Your task to perform on an android device: install app "Grab" Image 0: 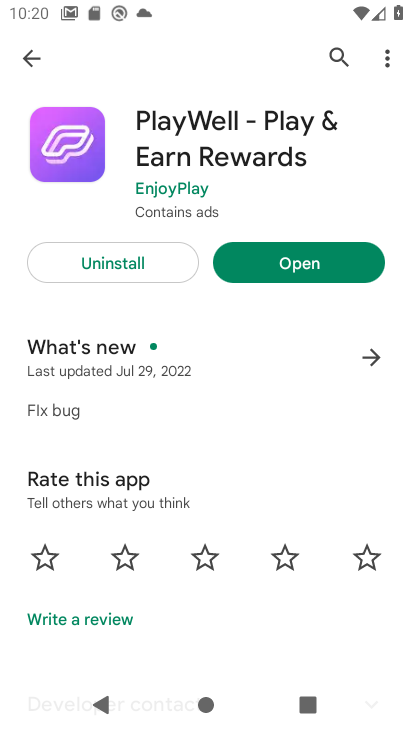
Step 0: click (337, 53)
Your task to perform on an android device: install app "Grab" Image 1: 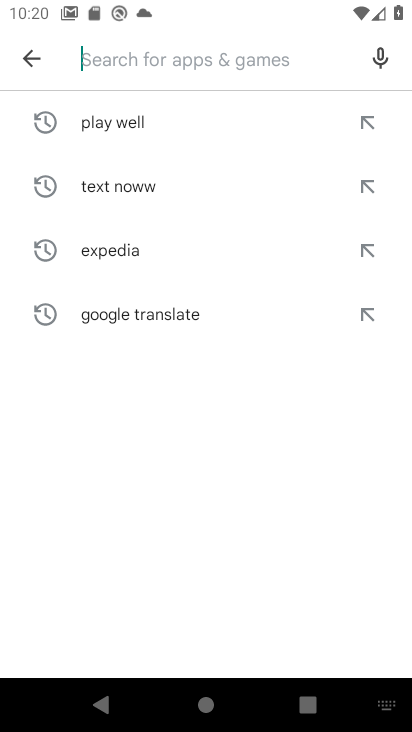
Step 1: click (131, 58)
Your task to perform on an android device: install app "Grab" Image 2: 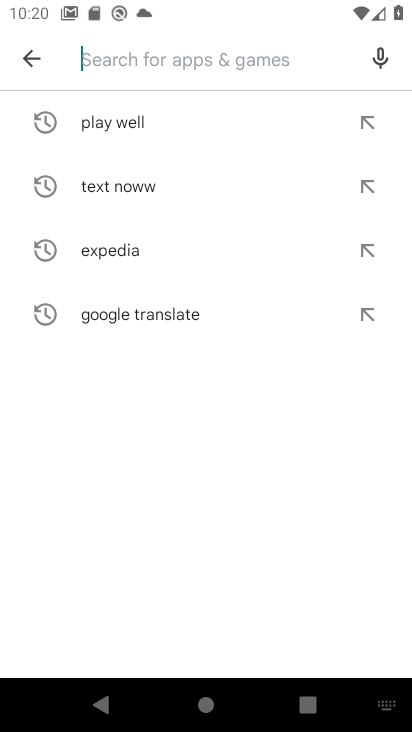
Step 2: type "grab"
Your task to perform on an android device: install app "Grab" Image 3: 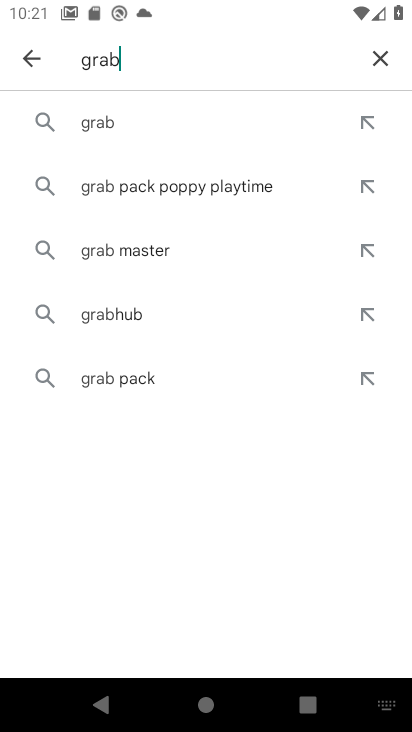
Step 3: click (89, 121)
Your task to perform on an android device: install app "Grab" Image 4: 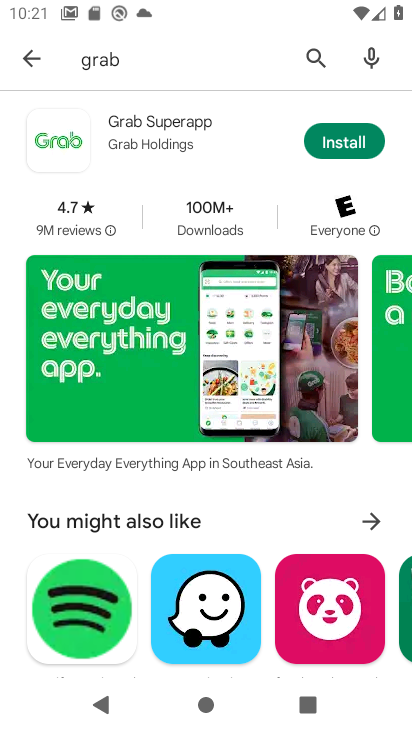
Step 4: click (347, 133)
Your task to perform on an android device: install app "Grab" Image 5: 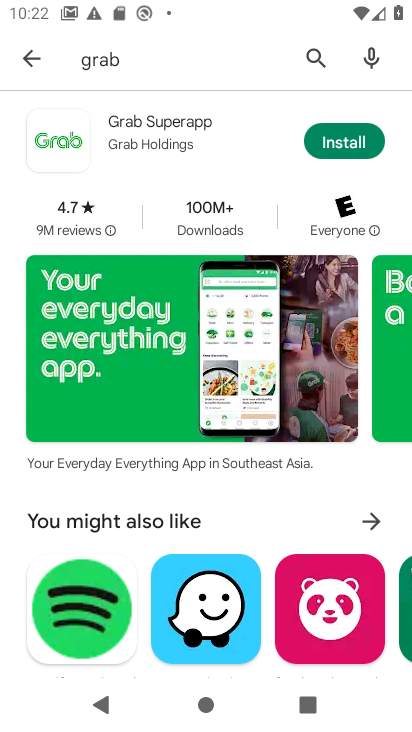
Step 5: click (333, 137)
Your task to perform on an android device: install app "Grab" Image 6: 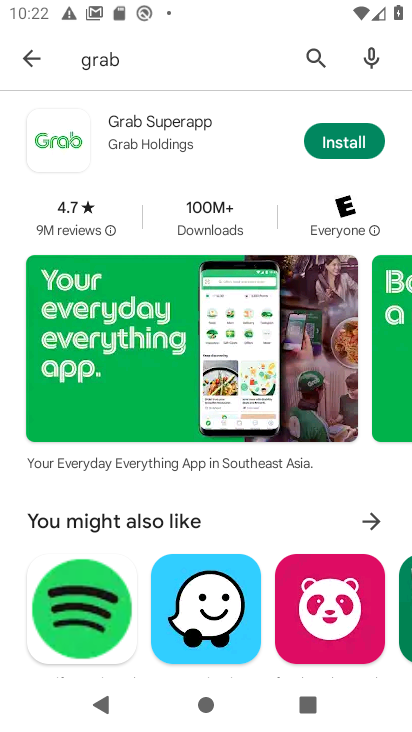
Step 6: click (361, 142)
Your task to perform on an android device: install app "Grab" Image 7: 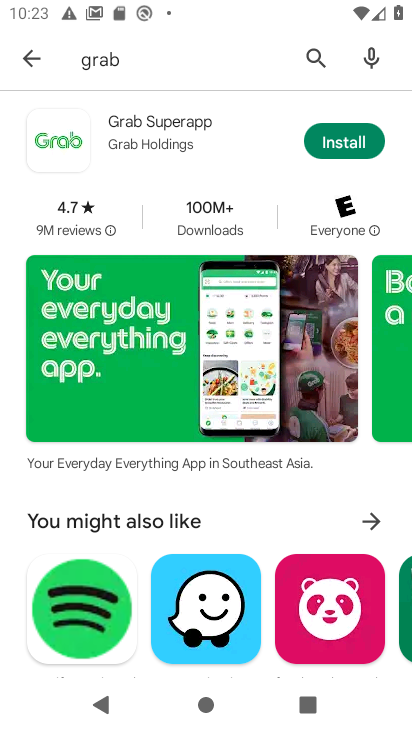
Step 7: click (337, 137)
Your task to perform on an android device: install app "Grab" Image 8: 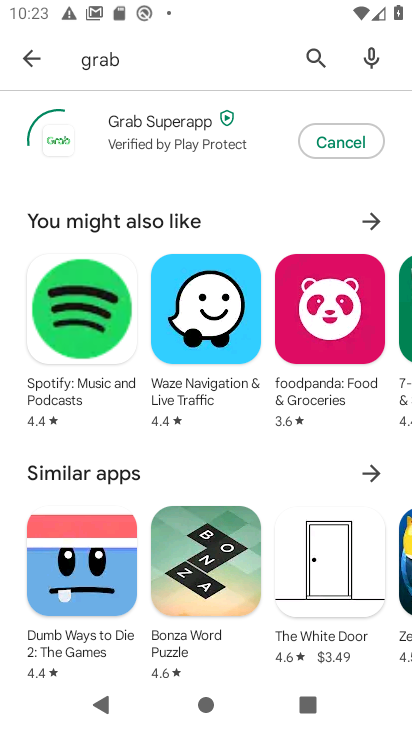
Step 8: click (325, 128)
Your task to perform on an android device: install app "Grab" Image 9: 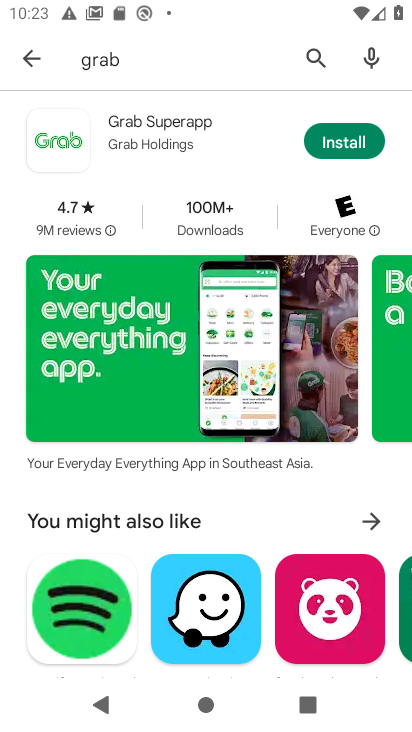
Step 9: task complete